Your task to perform on an android device: turn on showing notifications on the lock screen Image 0: 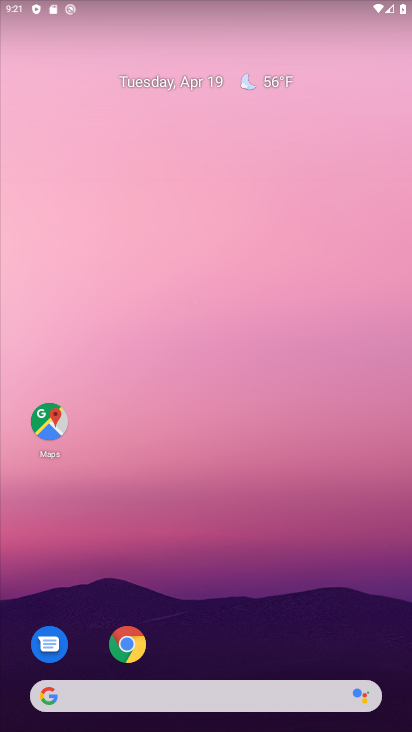
Step 0: drag from (235, 567) to (235, 186)
Your task to perform on an android device: turn on showing notifications on the lock screen Image 1: 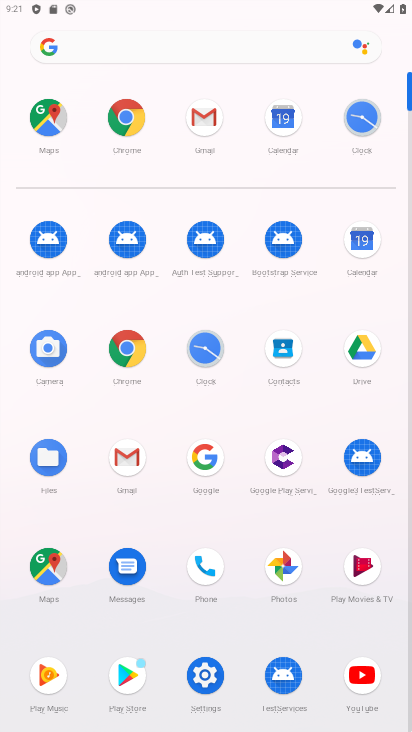
Step 1: click (206, 685)
Your task to perform on an android device: turn on showing notifications on the lock screen Image 2: 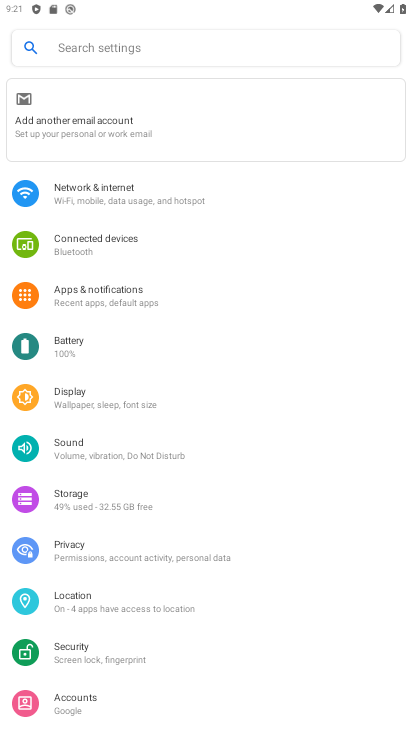
Step 2: click (167, 297)
Your task to perform on an android device: turn on showing notifications on the lock screen Image 3: 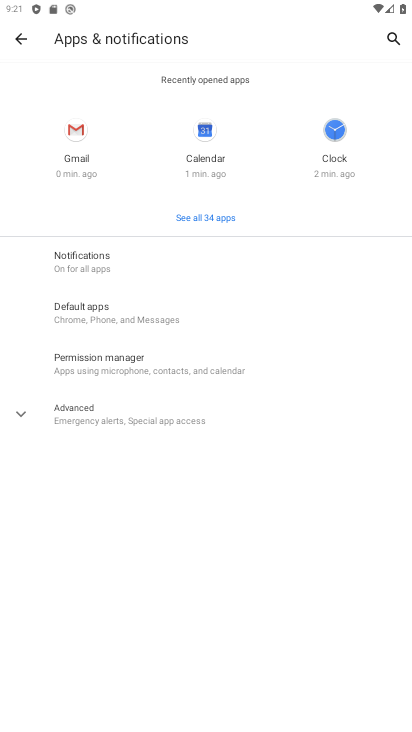
Step 3: click (121, 270)
Your task to perform on an android device: turn on showing notifications on the lock screen Image 4: 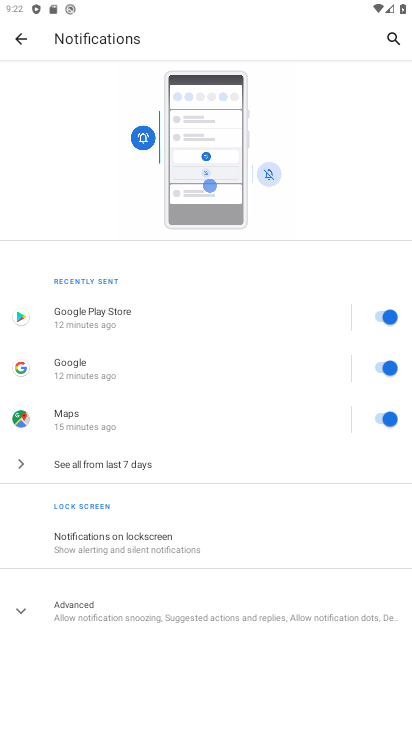
Step 4: click (154, 553)
Your task to perform on an android device: turn on showing notifications on the lock screen Image 5: 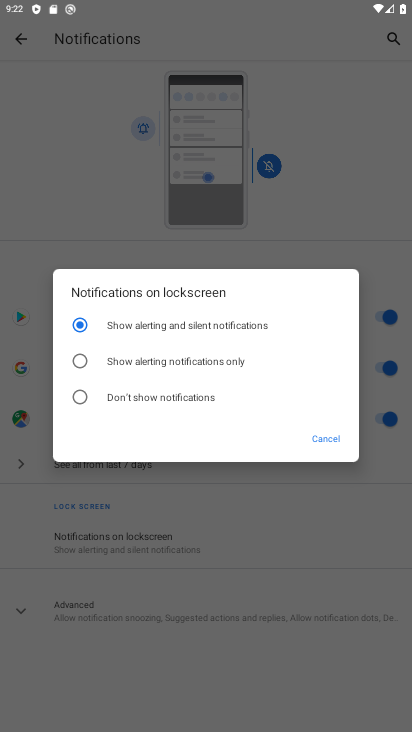
Step 5: task complete